Your task to perform on an android device: make emails show in primary in the gmail app Image 0: 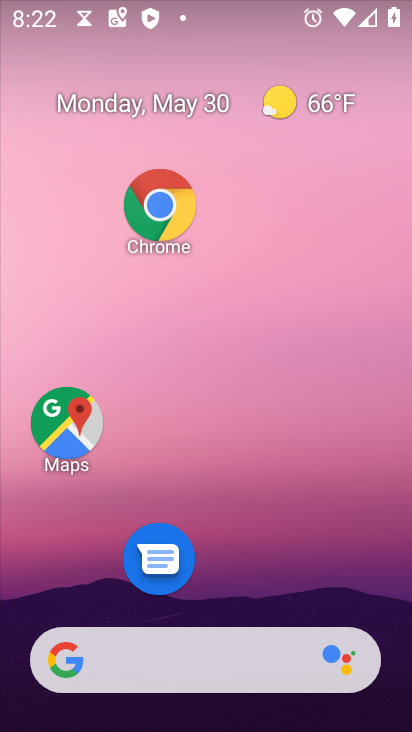
Step 0: drag from (296, 660) to (226, 111)
Your task to perform on an android device: make emails show in primary in the gmail app Image 1: 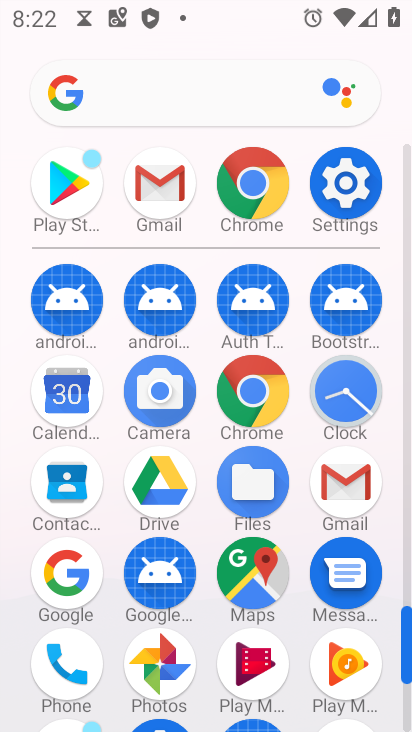
Step 1: click (345, 469)
Your task to perform on an android device: make emails show in primary in the gmail app Image 2: 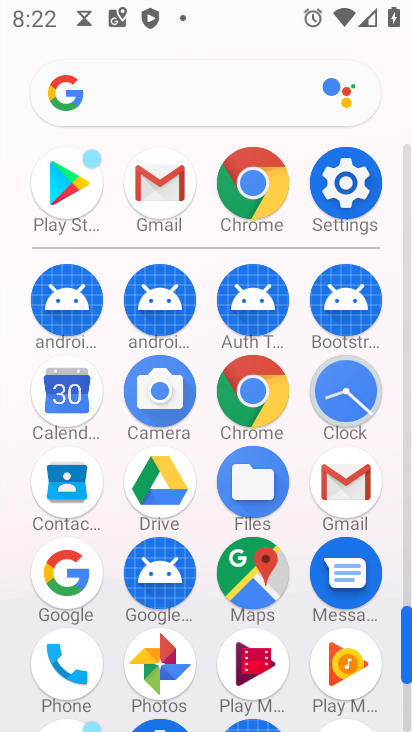
Step 2: click (345, 469)
Your task to perform on an android device: make emails show in primary in the gmail app Image 3: 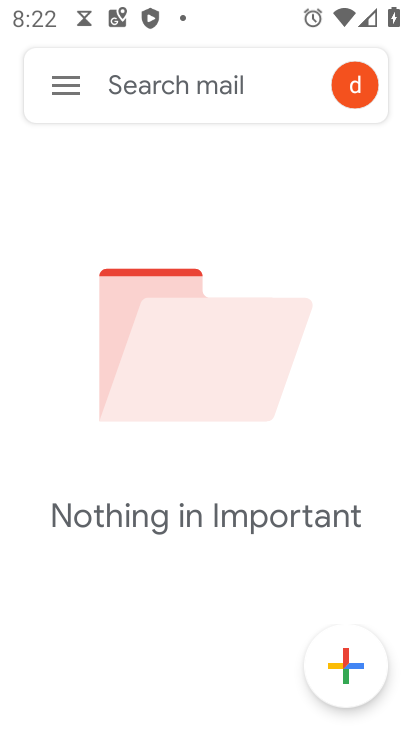
Step 3: click (71, 90)
Your task to perform on an android device: make emails show in primary in the gmail app Image 4: 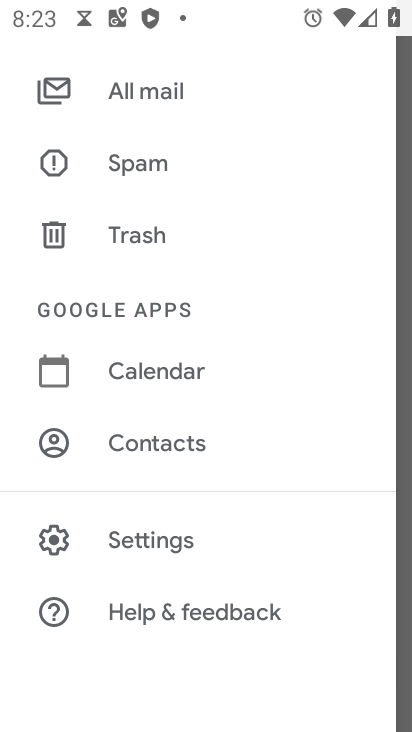
Step 4: click (136, 540)
Your task to perform on an android device: make emails show in primary in the gmail app Image 5: 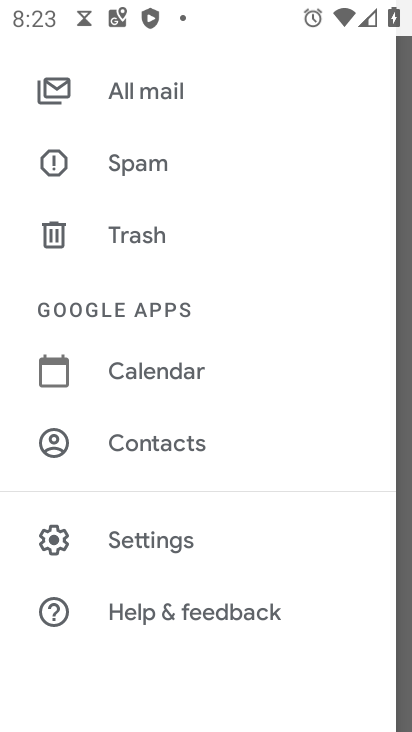
Step 5: click (136, 540)
Your task to perform on an android device: make emails show in primary in the gmail app Image 6: 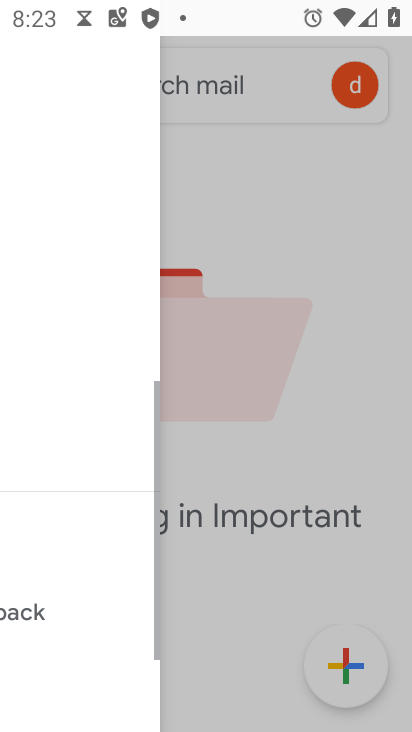
Step 6: click (136, 540)
Your task to perform on an android device: make emails show in primary in the gmail app Image 7: 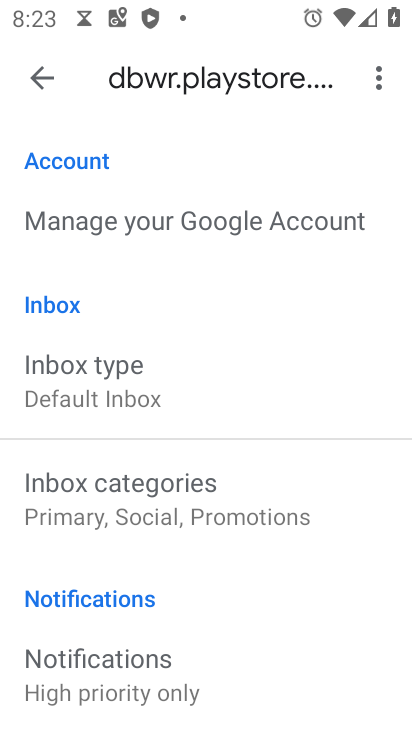
Step 7: click (117, 492)
Your task to perform on an android device: make emails show in primary in the gmail app Image 8: 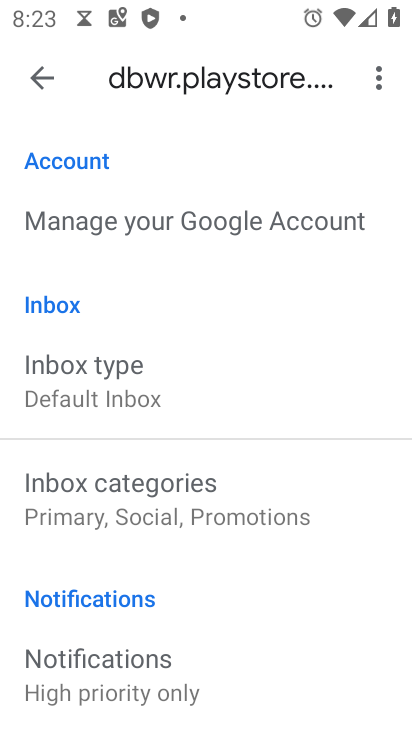
Step 8: click (117, 492)
Your task to perform on an android device: make emails show in primary in the gmail app Image 9: 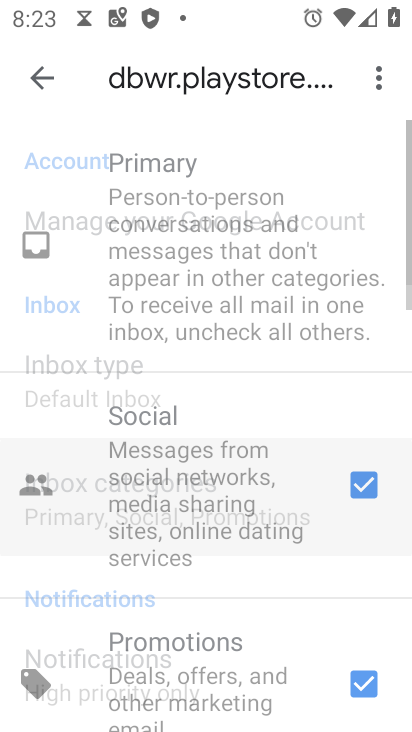
Step 9: click (117, 492)
Your task to perform on an android device: make emails show in primary in the gmail app Image 10: 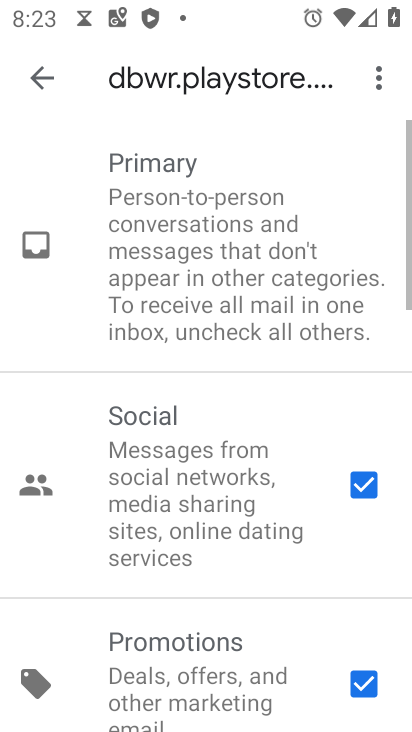
Step 10: click (190, 266)
Your task to perform on an android device: make emails show in primary in the gmail app Image 11: 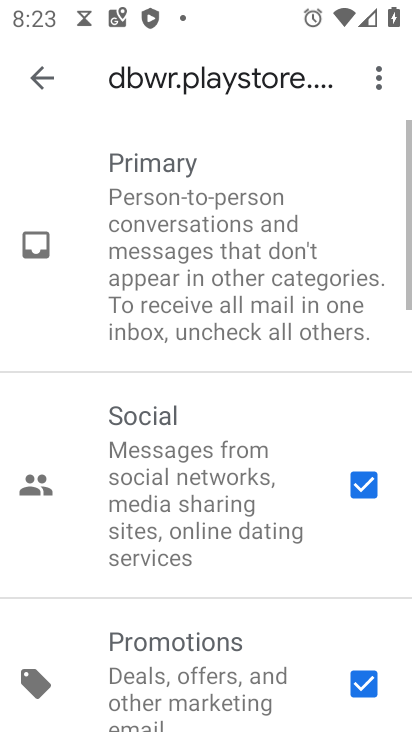
Step 11: click (189, 265)
Your task to perform on an android device: make emails show in primary in the gmail app Image 12: 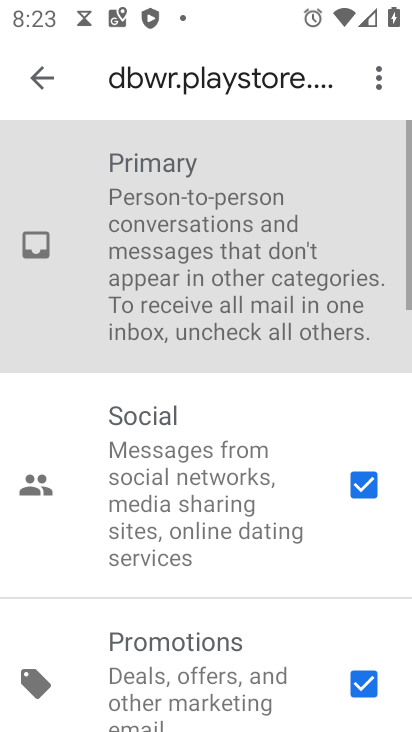
Step 12: click (188, 265)
Your task to perform on an android device: make emails show in primary in the gmail app Image 13: 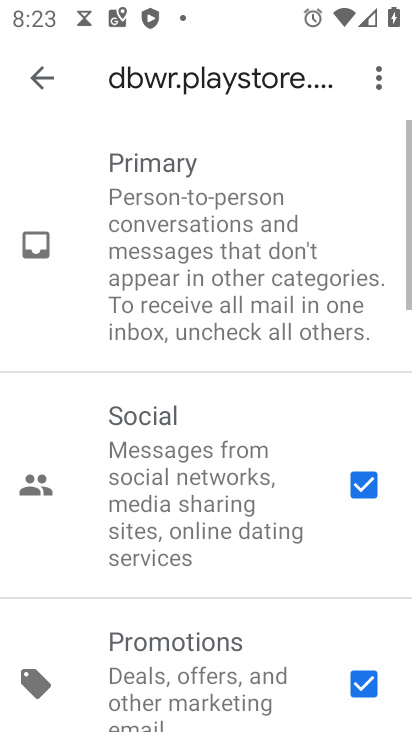
Step 13: click (177, 260)
Your task to perform on an android device: make emails show in primary in the gmail app Image 14: 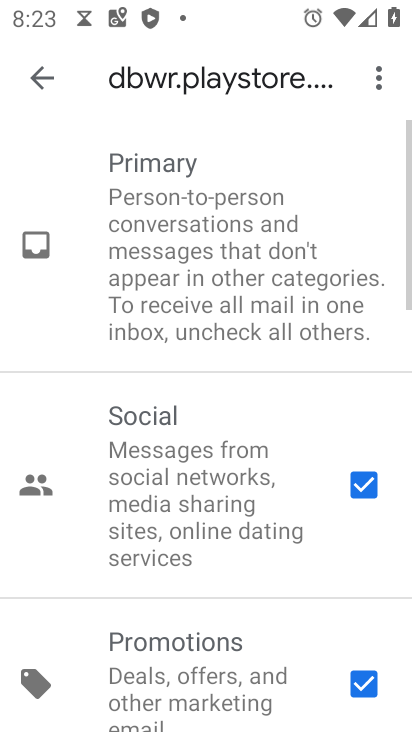
Step 14: task complete